Your task to perform on an android device: Clear all items from cart on bestbuy. Image 0: 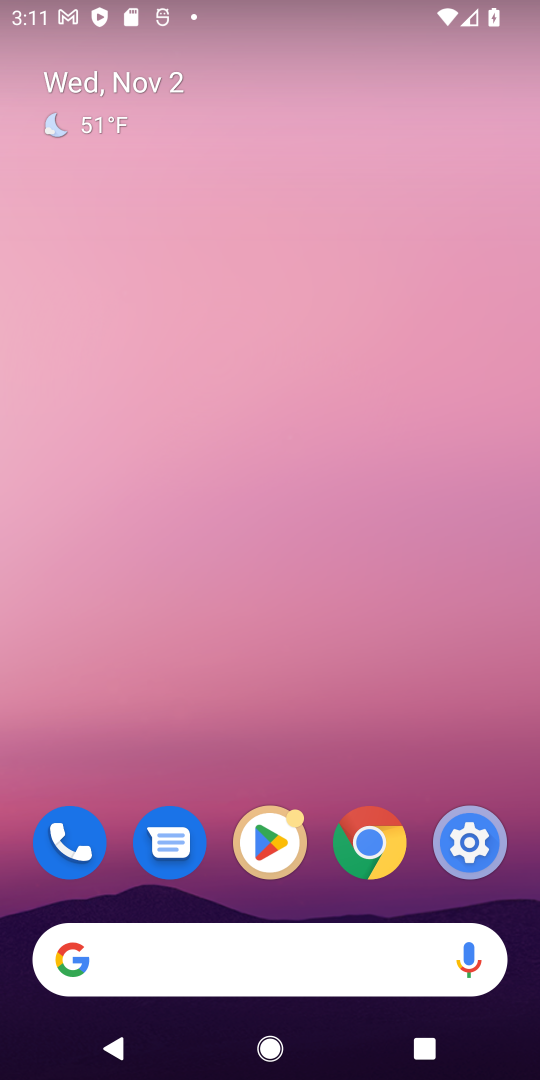
Step 0: click (198, 936)
Your task to perform on an android device: Clear all items from cart on bestbuy. Image 1: 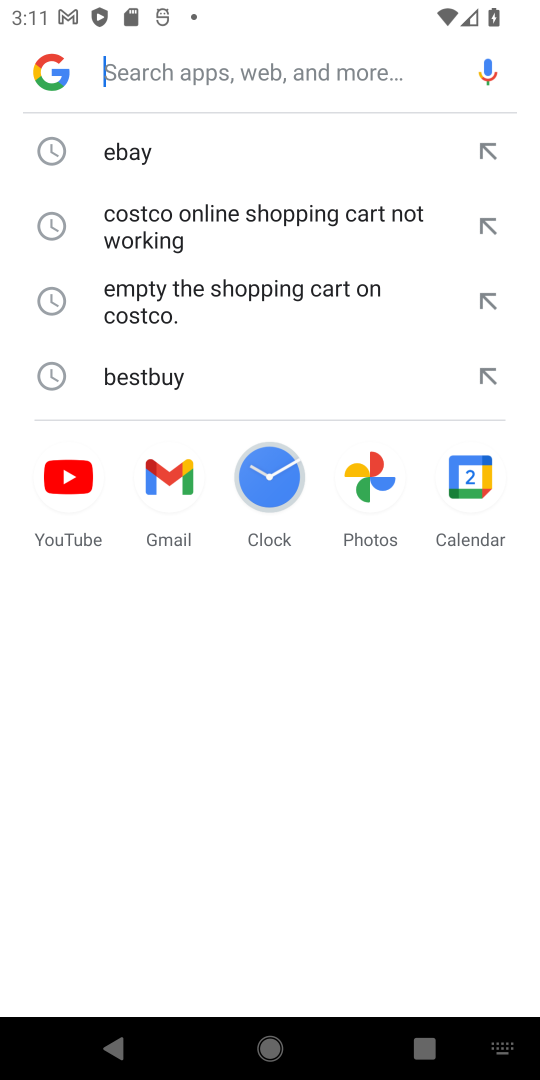
Step 1: click (166, 378)
Your task to perform on an android device: Clear all items from cart on bestbuy. Image 2: 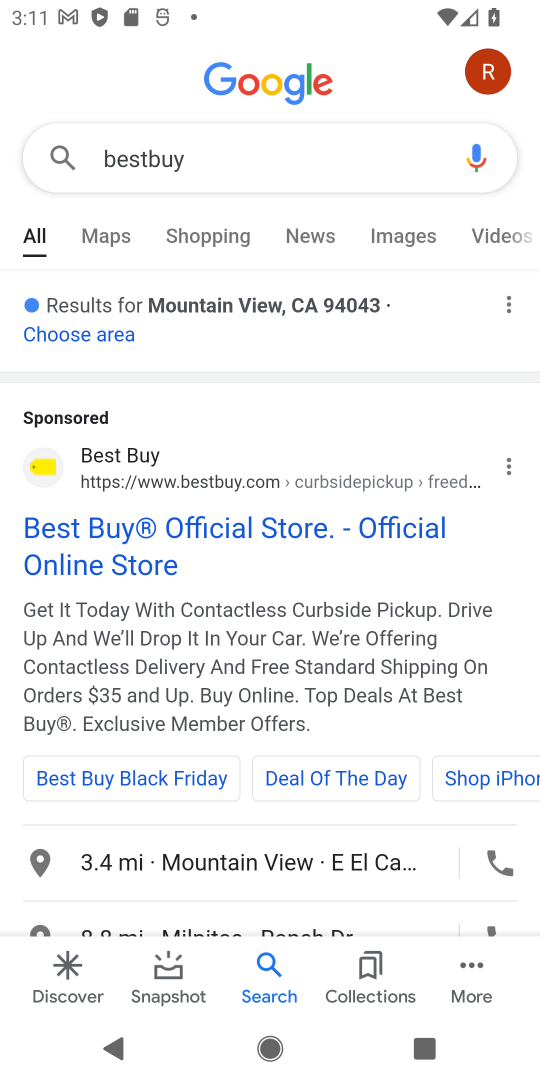
Step 2: drag from (294, 576) to (254, 401)
Your task to perform on an android device: Clear all items from cart on bestbuy. Image 3: 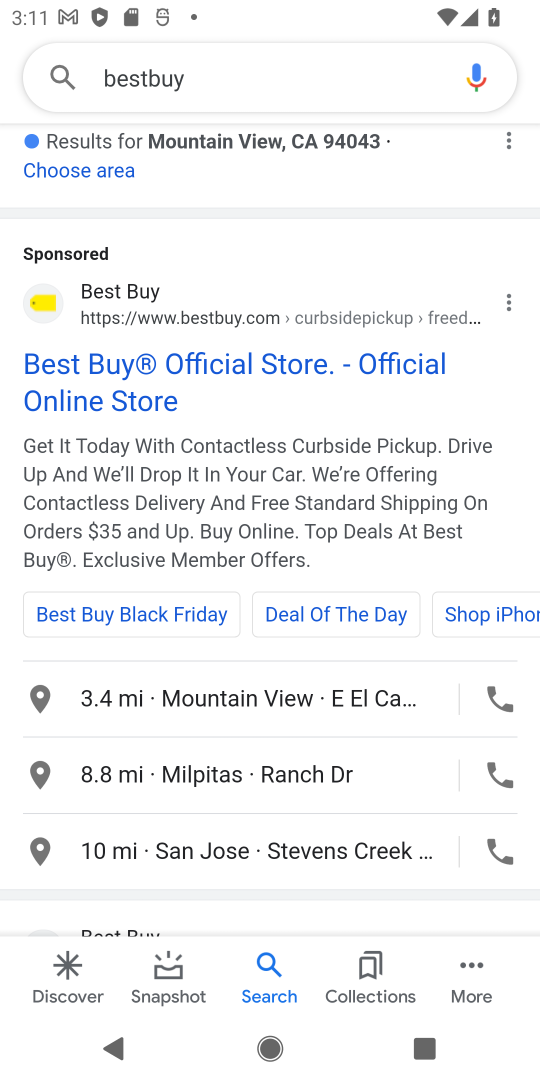
Step 3: drag from (454, 570) to (454, 458)
Your task to perform on an android device: Clear all items from cart on bestbuy. Image 4: 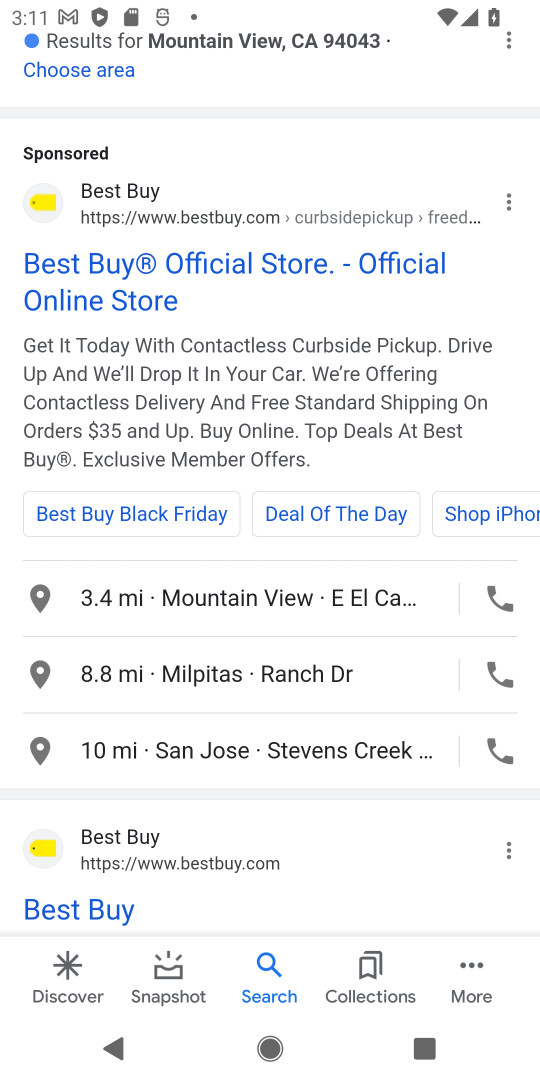
Step 4: click (103, 909)
Your task to perform on an android device: Clear all items from cart on bestbuy. Image 5: 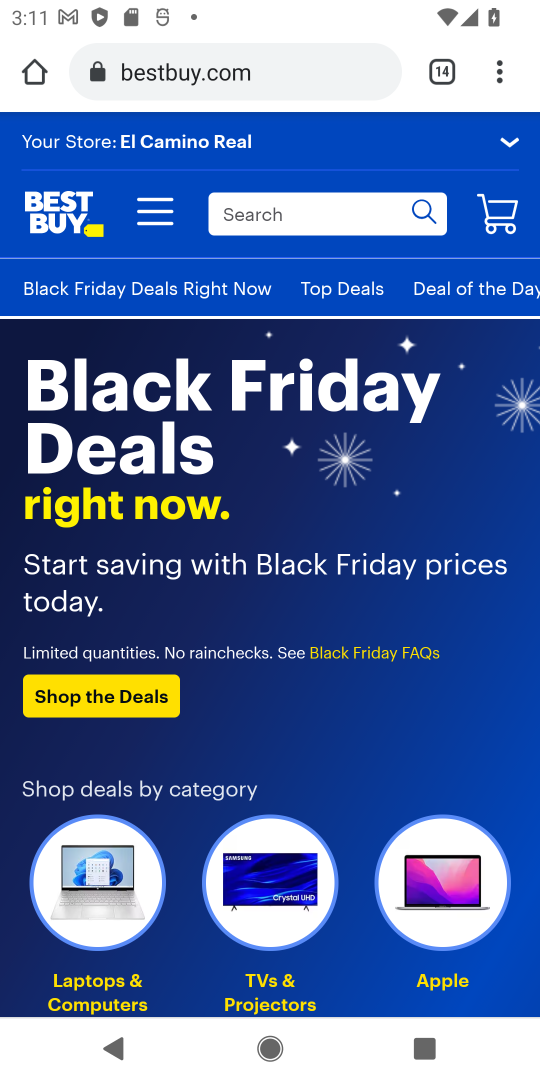
Step 5: task complete